Your task to perform on an android device: Open eBay Image 0: 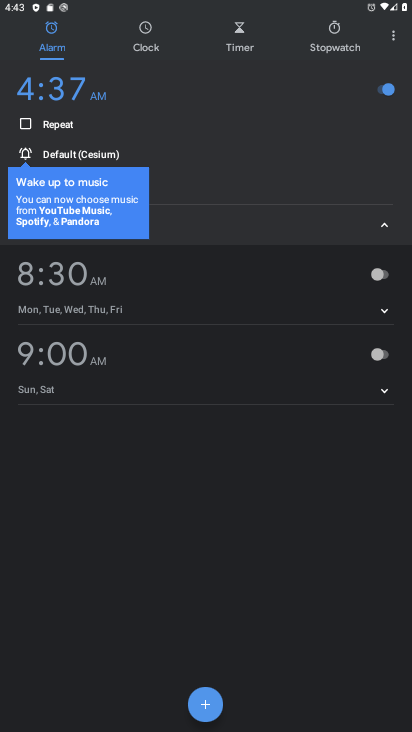
Step 0: press home button
Your task to perform on an android device: Open eBay Image 1: 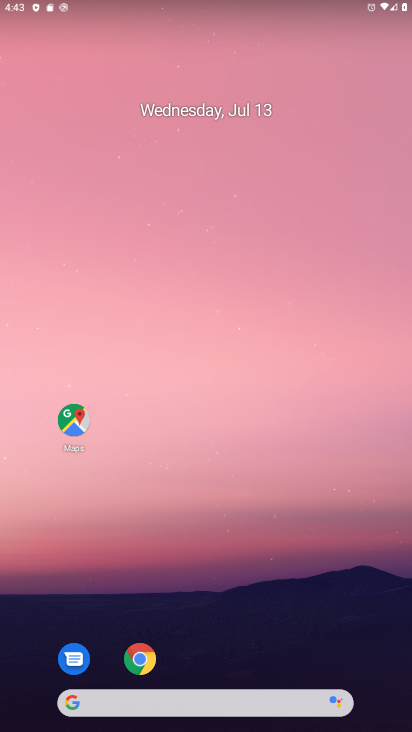
Step 1: drag from (260, 617) to (242, 144)
Your task to perform on an android device: Open eBay Image 2: 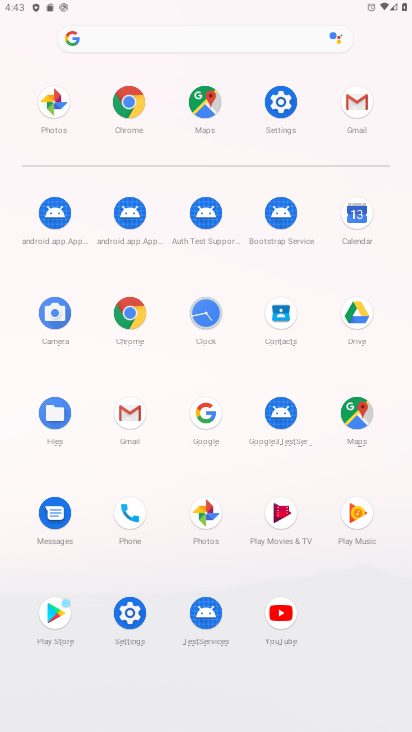
Step 2: click (126, 103)
Your task to perform on an android device: Open eBay Image 3: 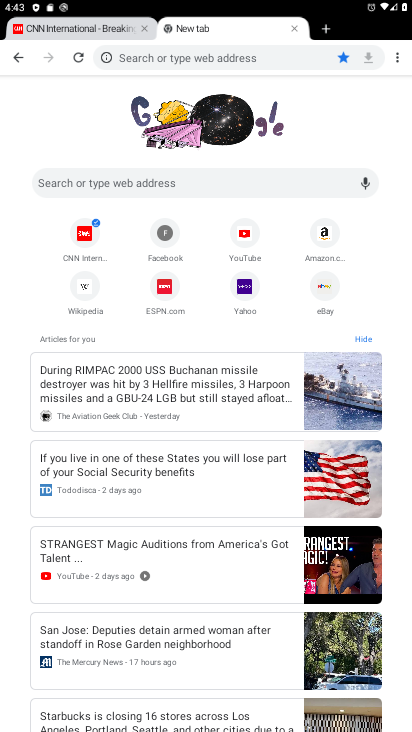
Step 3: click (179, 56)
Your task to perform on an android device: Open eBay Image 4: 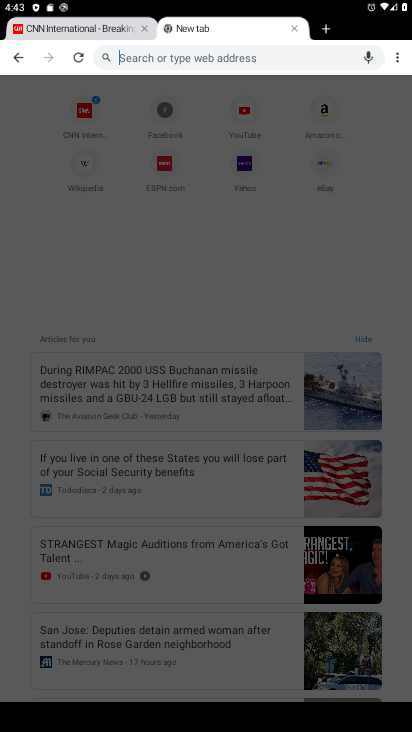
Step 4: type "ebay"
Your task to perform on an android device: Open eBay Image 5: 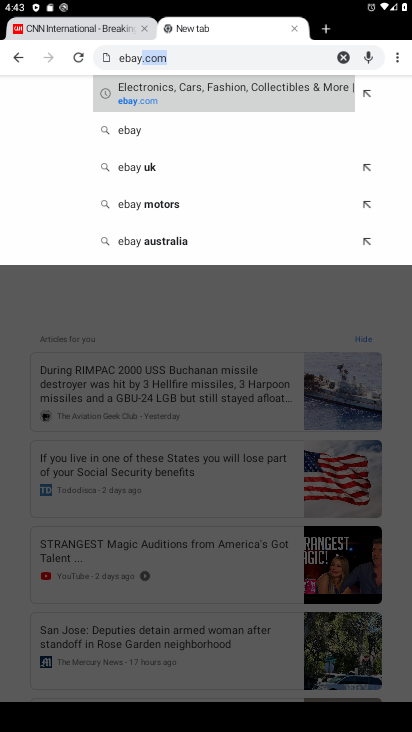
Step 5: click (156, 93)
Your task to perform on an android device: Open eBay Image 6: 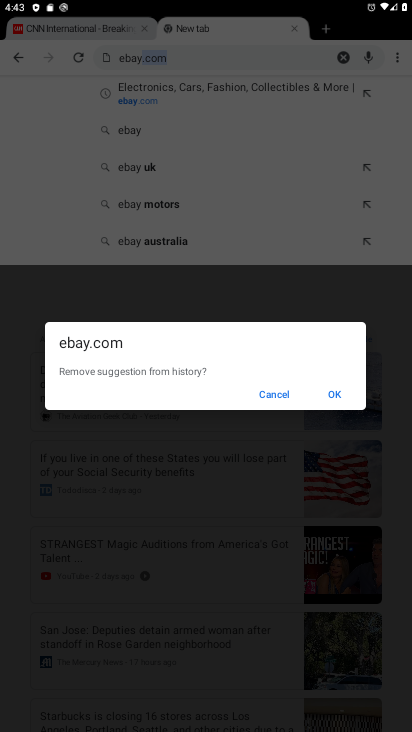
Step 6: click (270, 389)
Your task to perform on an android device: Open eBay Image 7: 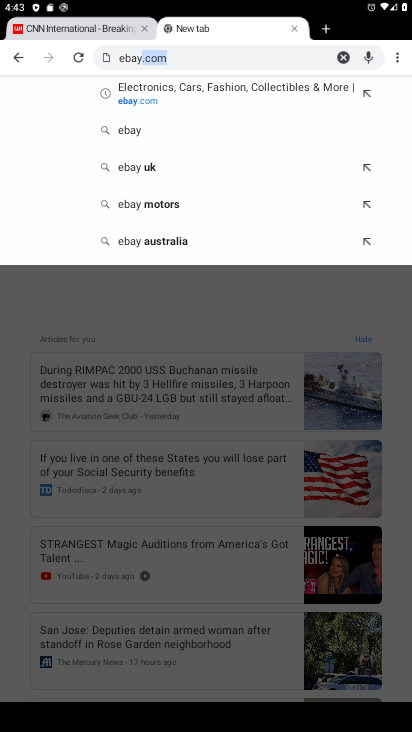
Step 7: click (151, 98)
Your task to perform on an android device: Open eBay Image 8: 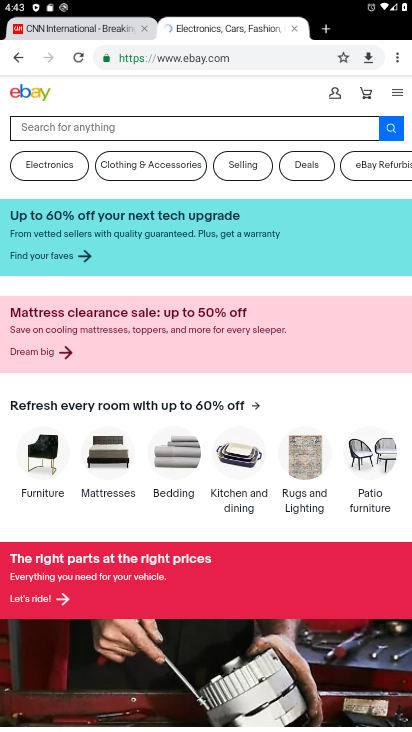
Step 8: task complete